Your task to perform on an android device: Open Yahoo.com Image 0: 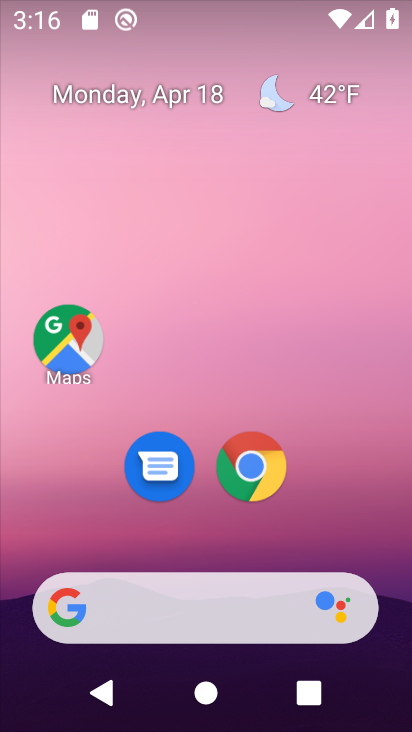
Step 0: click (251, 488)
Your task to perform on an android device: Open Yahoo.com Image 1: 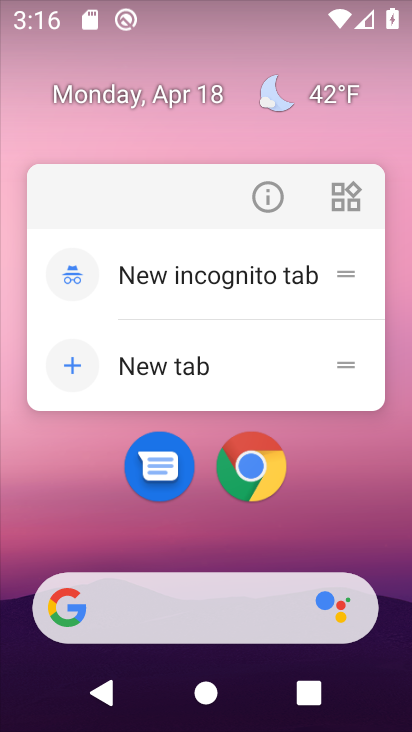
Step 1: click (255, 487)
Your task to perform on an android device: Open Yahoo.com Image 2: 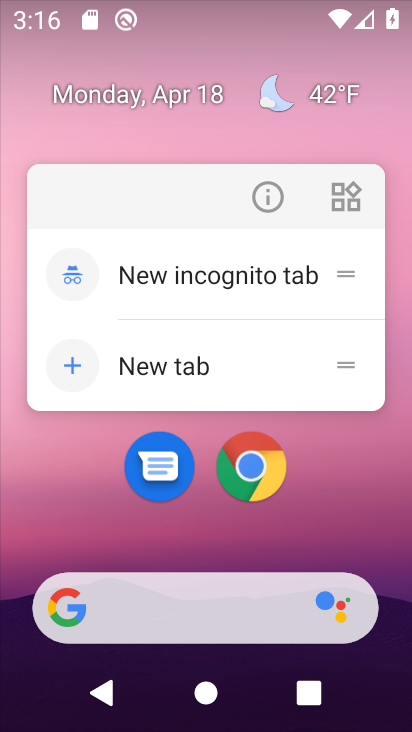
Step 2: click (255, 486)
Your task to perform on an android device: Open Yahoo.com Image 3: 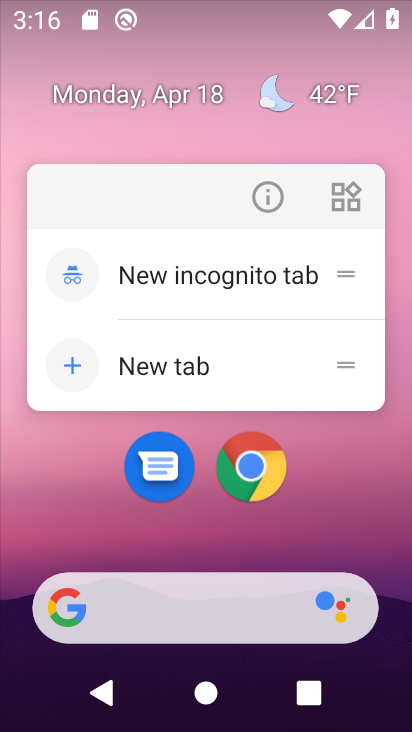
Step 3: click (255, 486)
Your task to perform on an android device: Open Yahoo.com Image 4: 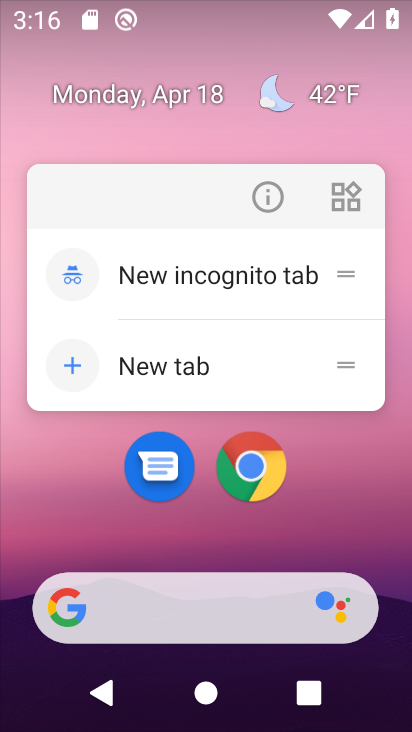
Step 4: click (254, 485)
Your task to perform on an android device: Open Yahoo.com Image 5: 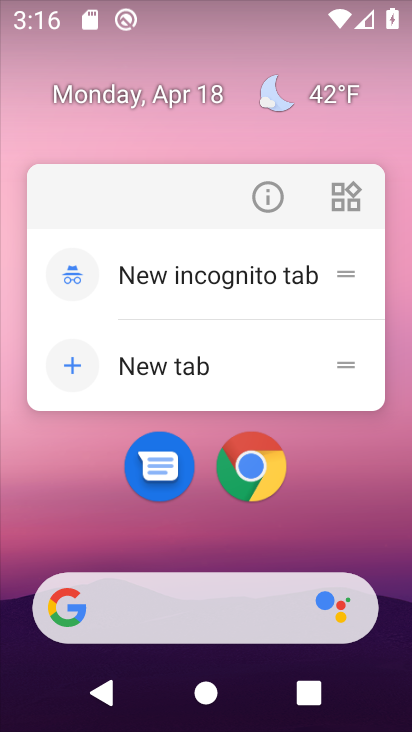
Step 5: click (257, 468)
Your task to perform on an android device: Open Yahoo.com Image 6: 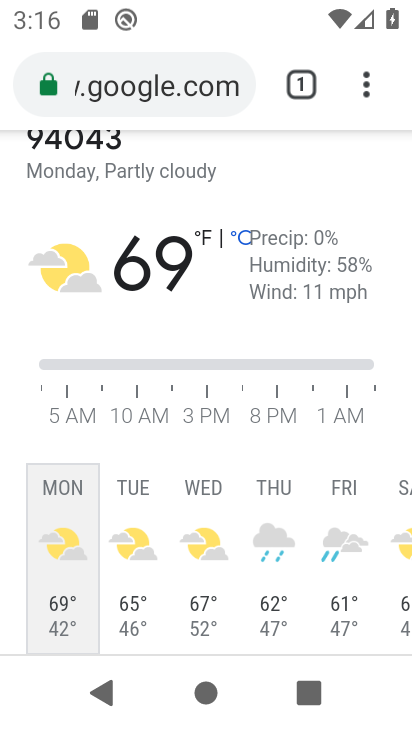
Step 6: click (200, 96)
Your task to perform on an android device: Open Yahoo.com Image 7: 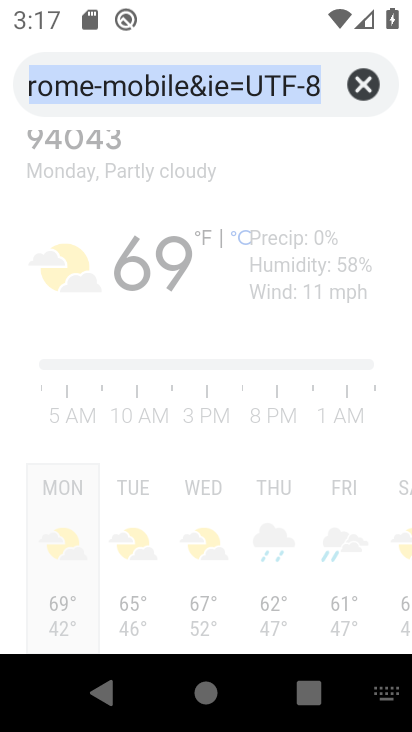
Step 7: click (357, 84)
Your task to perform on an android device: Open Yahoo.com Image 8: 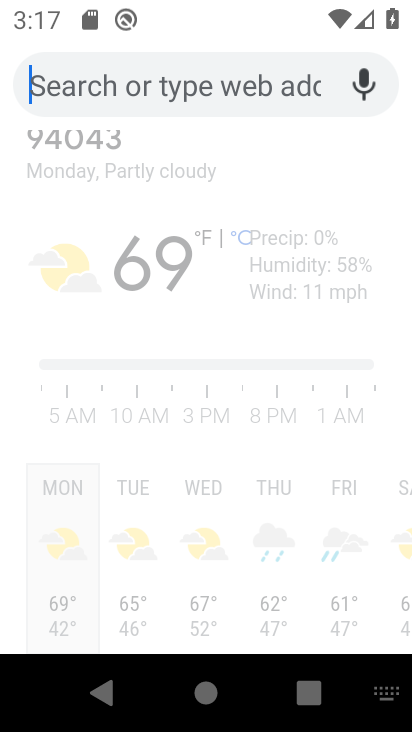
Step 8: click (156, 80)
Your task to perform on an android device: Open Yahoo.com Image 9: 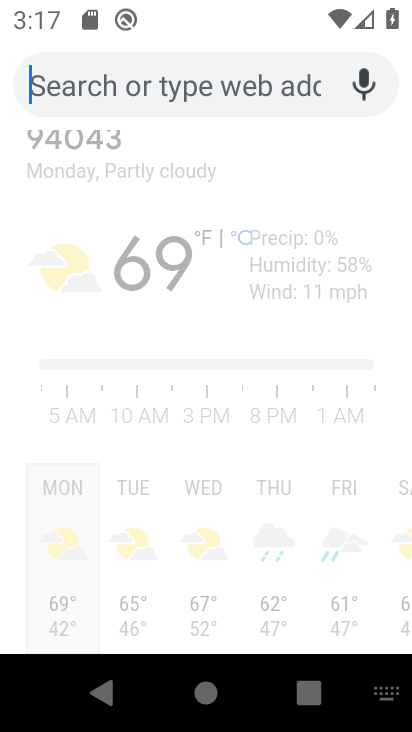
Step 9: type "yahoo.com"
Your task to perform on an android device: Open Yahoo.com Image 10: 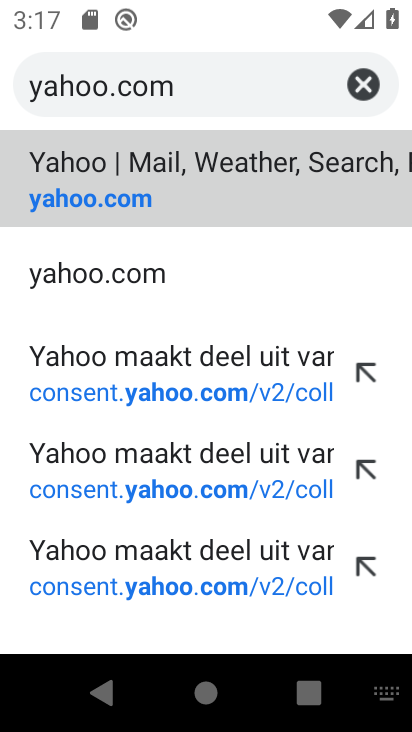
Step 10: click (120, 195)
Your task to perform on an android device: Open Yahoo.com Image 11: 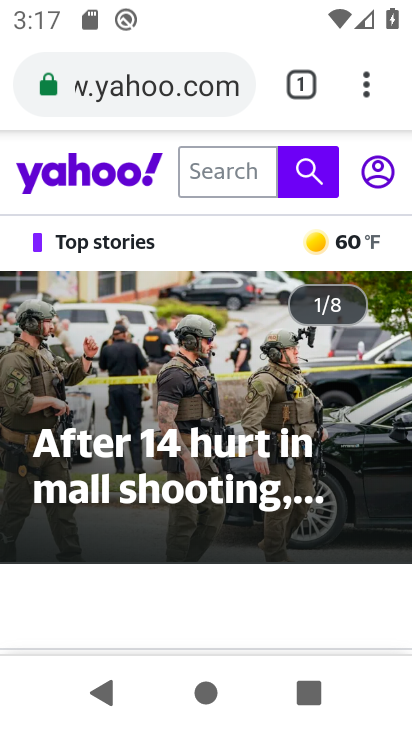
Step 11: task complete